Your task to perform on an android device: set default search engine in the chrome app Image 0: 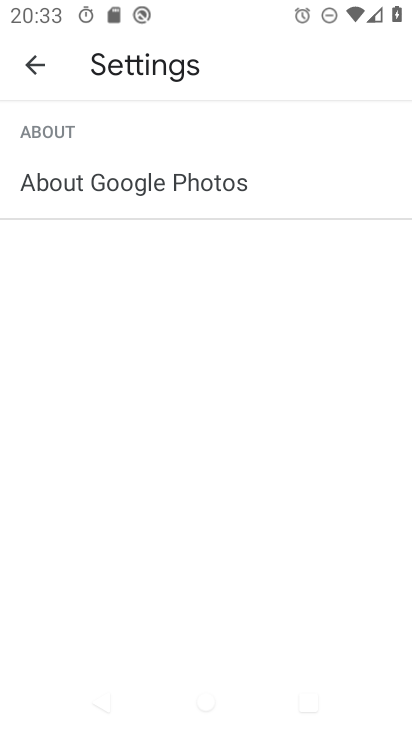
Step 0: press home button
Your task to perform on an android device: set default search engine in the chrome app Image 1: 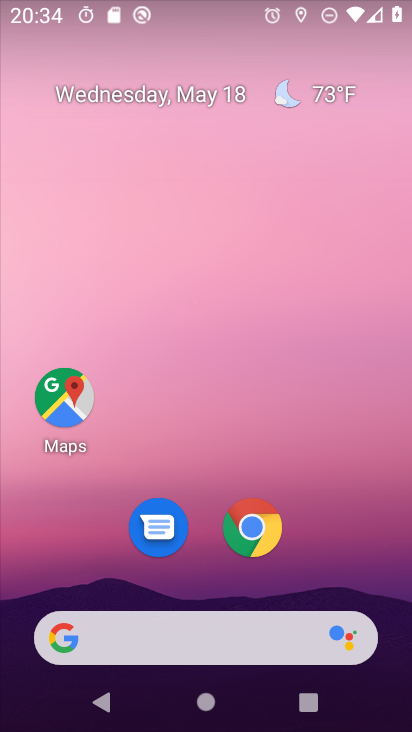
Step 1: click (260, 521)
Your task to perform on an android device: set default search engine in the chrome app Image 2: 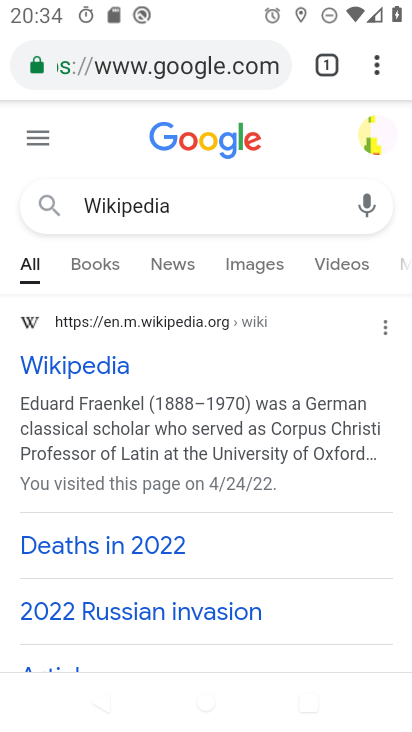
Step 2: click (376, 62)
Your task to perform on an android device: set default search engine in the chrome app Image 3: 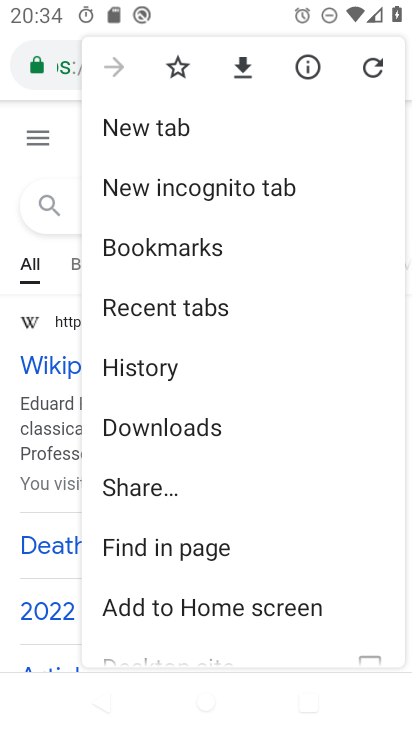
Step 3: drag from (305, 541) to (287, 325)
Your task to perform on an android device: set default search engine in the chrome app Image 4: 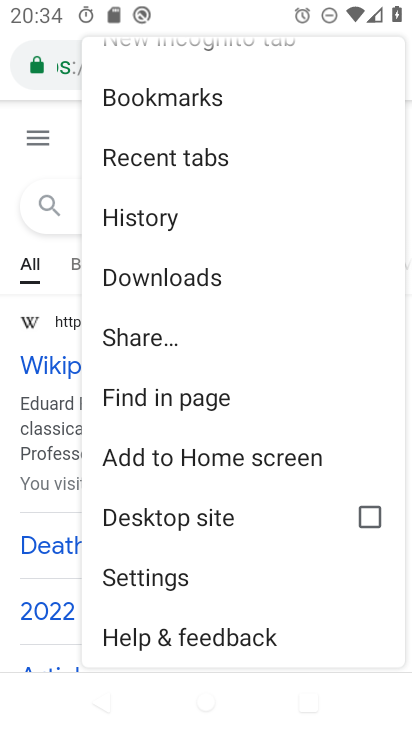
Step 4: click (114, 576)
Your task to perform on an android device: set default search engine in the chrome app Image 5: 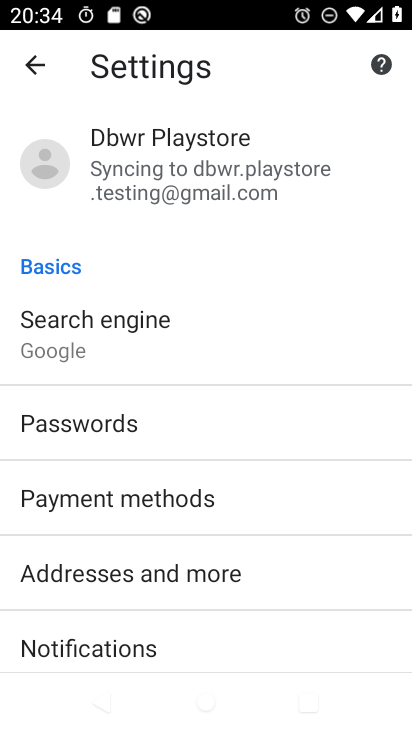
Step 5: click (70, 331)
Your task to perform on an android device: set default search engine in the chrome app Image 6: 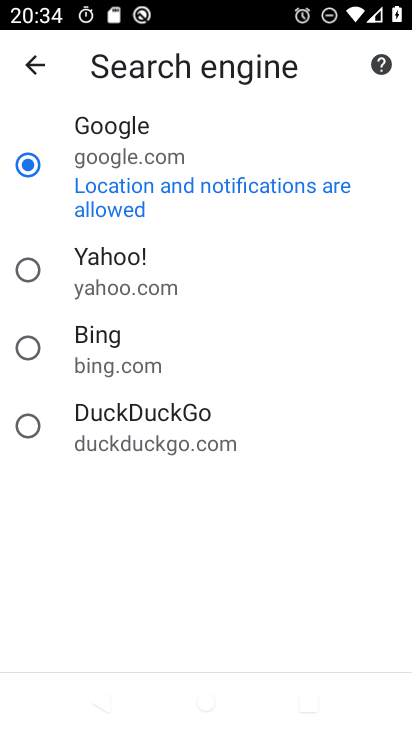
Step 6: task complete